Your task to perform on an android device: Is it going to rain tomorrow? Image 0: 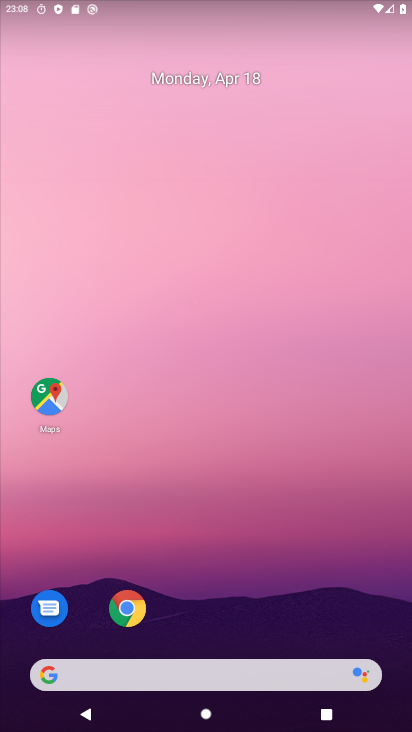
Step 0: drag from (217, 610) to (223, 163)
Your task to perform on an android device: Is it going to rain tomorrow? Image 1: 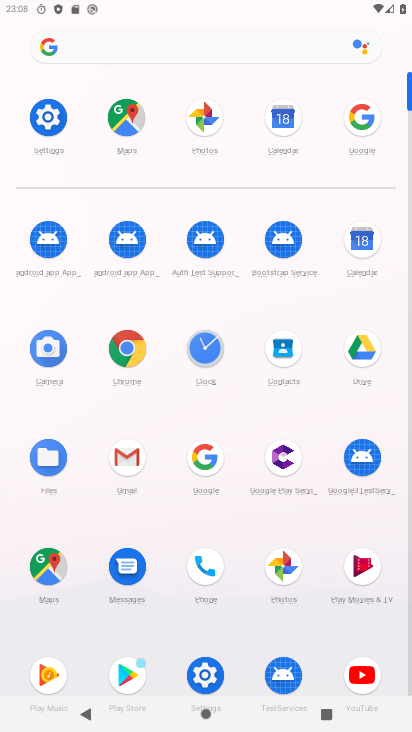
Step 1: click (203, 461)
Your task to perform on an android device: Is it going to rain tomorrow? Image 2: 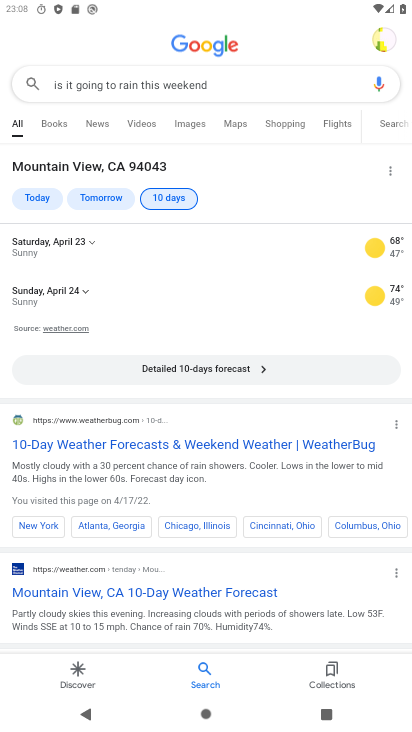
Step 2: click (259, 80)
Your task to perform on an android device: Is it going to rain tomorrow? Image 3: 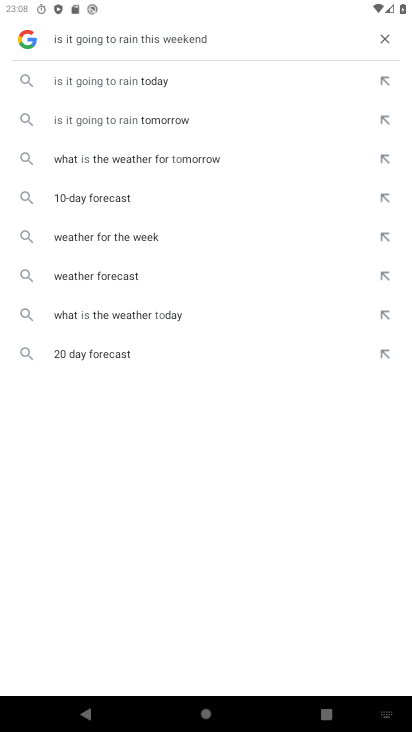
Step 3: click (171, 119)
Your task to perform on an android device: Is it going to rain tomorrow? Image 4: 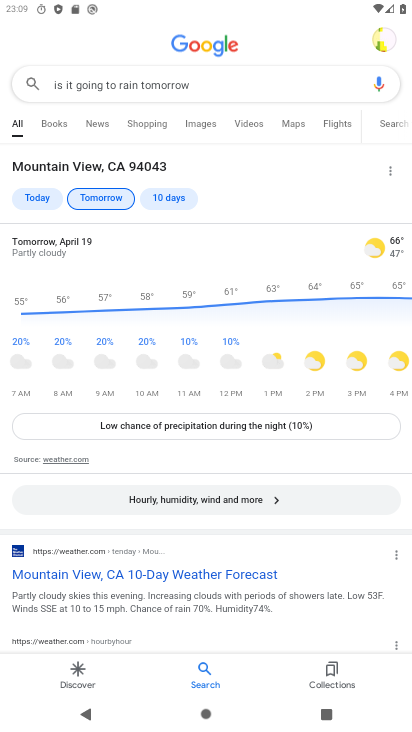
Step 4: task complete